Your task to perform on an android device: empty trash in google photos Image 0: 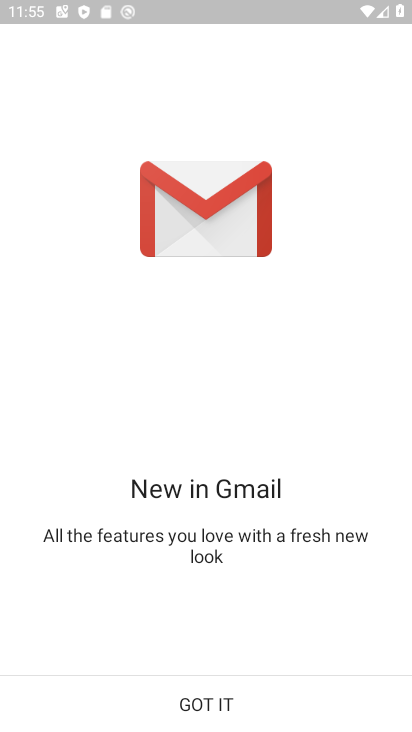
Step 0: press home button
Your task to perform on an android device: empty trash in google photos Image 1: 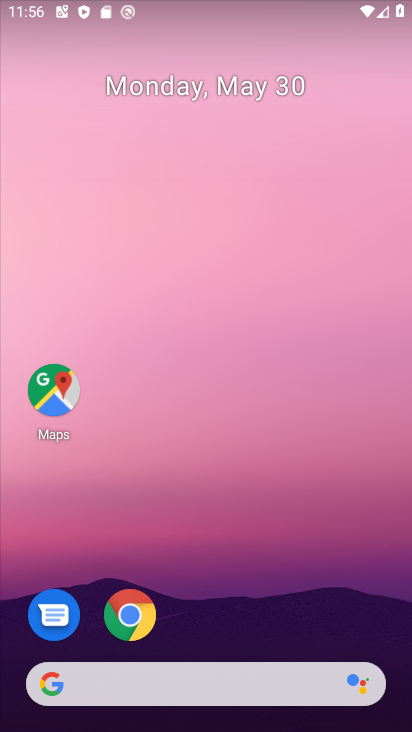
Step 1: drag from (217, 634) to (89, 28)
Your task to perform on an android device: empty trash in google photos Image 2: 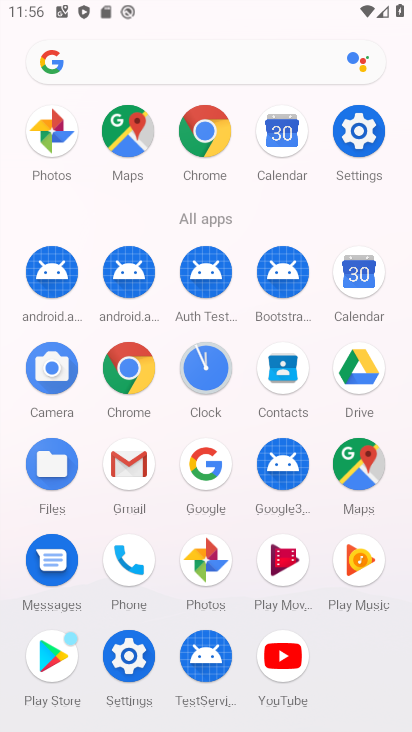
Step 2: click (209, 576)
Your task to perform on an android device: empty trash in google photos Image 3: 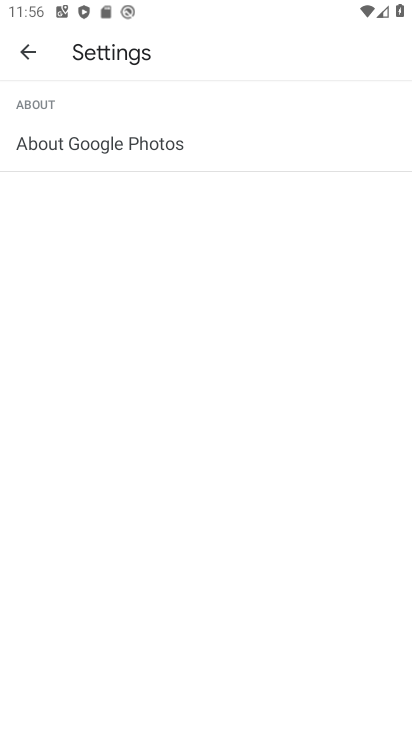
Step 3: click (30, 55)
Your task to perform on an android device: empty trash in google photos Image 4: 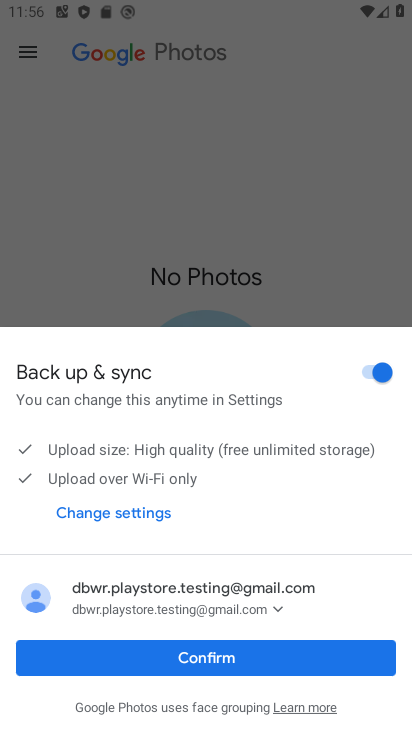
Step 4: click (250, 667)
Your task to perform on an android device: empty trash in google photos Image 5: 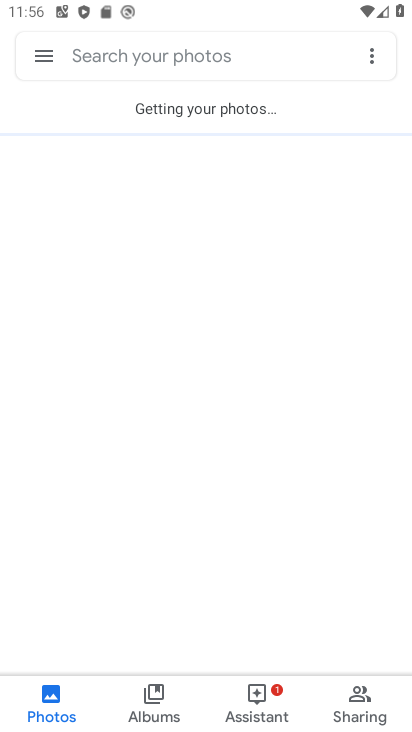
Step 5: click (40, 50)
Your task to perform on an android device: empty trash in google photos Image 6: 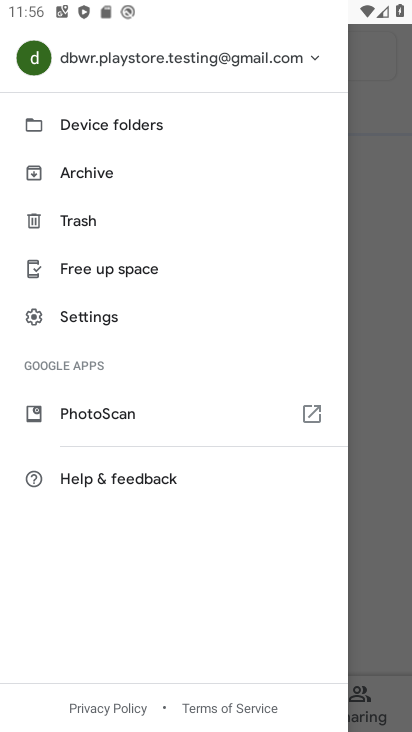
Step 6: click (82, 224)
Your task to perform on an android device: empty trash in google photos Image 7: 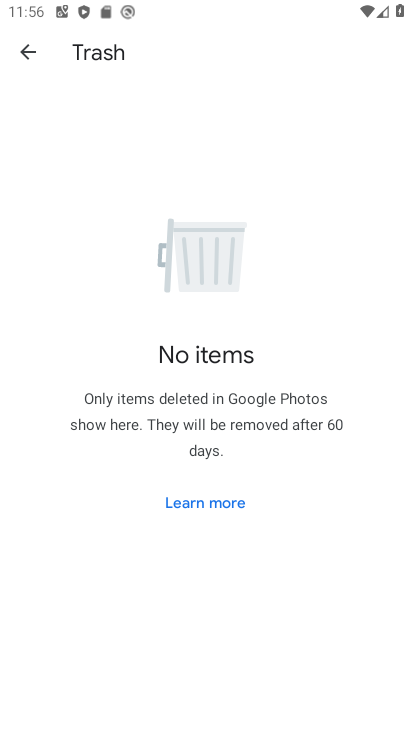
Step 7: task complete